Your task to perform on an android device: Is it going to rain this weekend? Image 0: 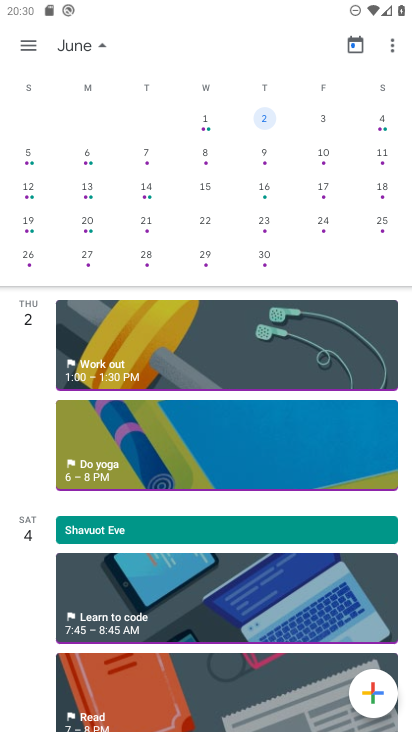
Step 0: press home button
Your task to perform on an android device: Is it going to rain this weekend? Image 1: 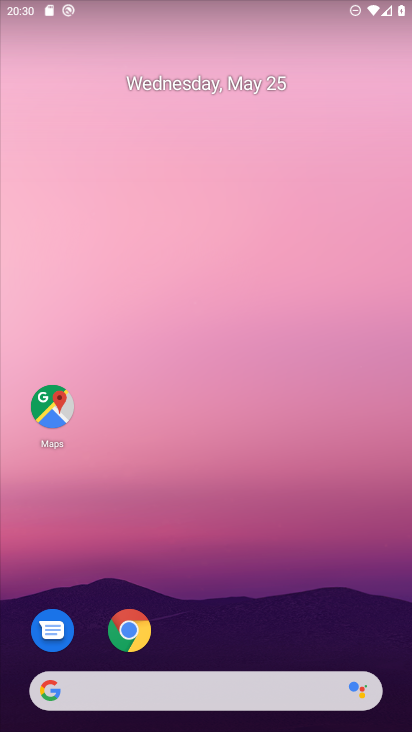
Step 1: drag from (275, 634) to (146, 64)
Your task to perform on an android device: Is it going to rain this weekend? Image 2: 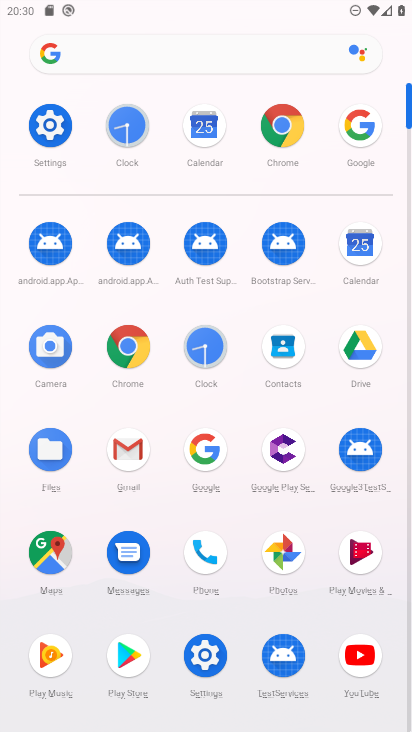
Step 2: click (200, 448)
Your task to perform on an android device: Is it going to rain this weekend? Image 3: 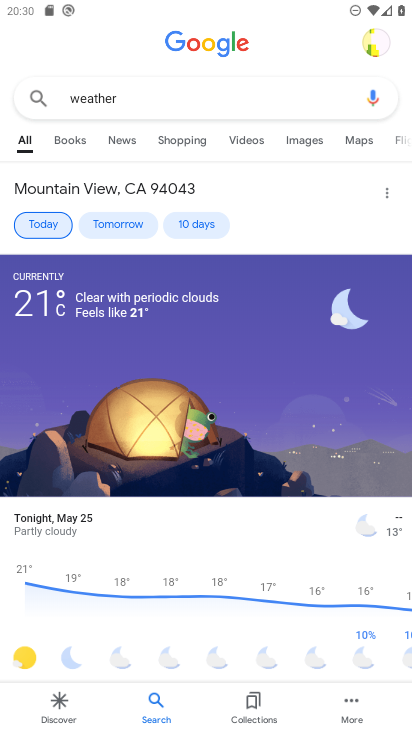
Step 3: click (176, 104)
Your task to perform on an android device: Is it going to rain this weekend? Image 4: 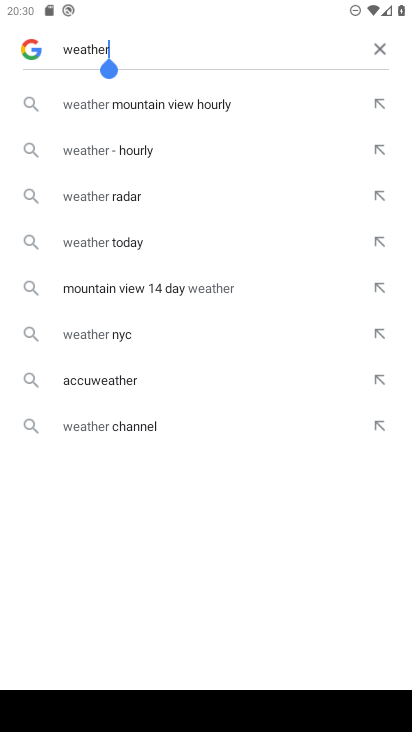
Step 4: click (381, 55)
Your task to perform on an android device: Is it going to rain this weekend? Image 5: 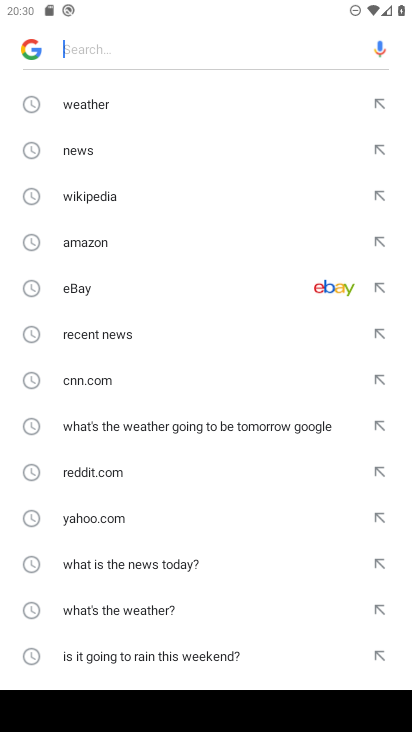
Step 5: click (193, 656)
Your task to perform on an android device: Is it going to rain this weekend? Image 6: 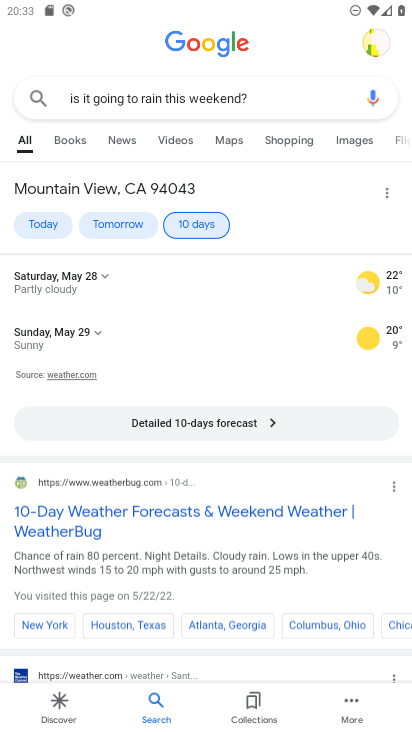
Step 6: task complete